Your task to perform on an android device: snooze an email in the gmail app Image 0: 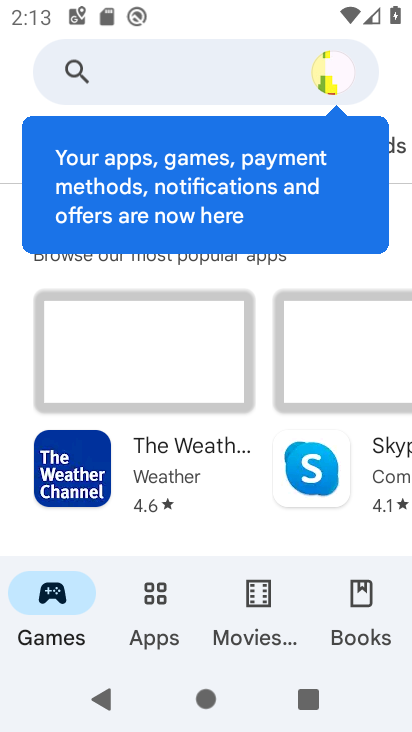
Step 0: press home button
Your task to perform on an android device: snooze an email in the gmail app Image 1: 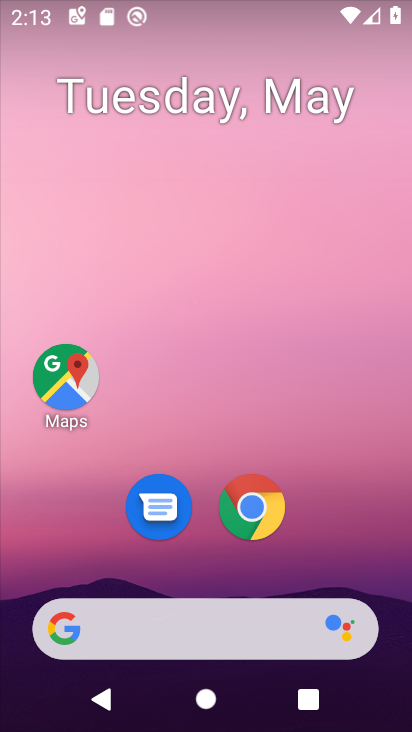
Step 1: drag from (203, 563) to (199, 227)
Your task to perform on an android device: snooze an email in the gmail app Image 2: 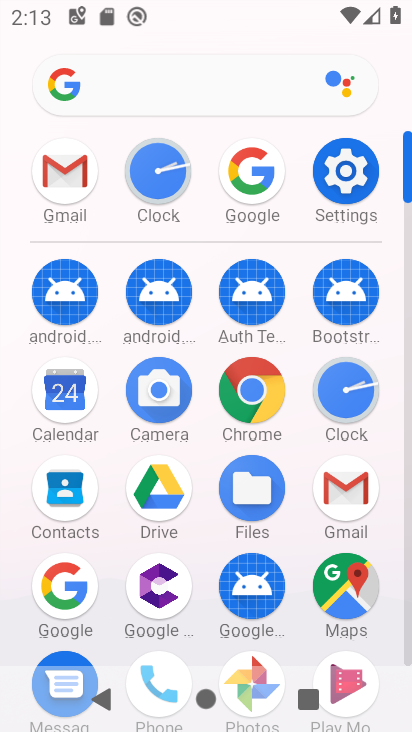
Step 2: click (326, 473)
Your task to perform on an android device: snooze an email in the gmail app Image 3: 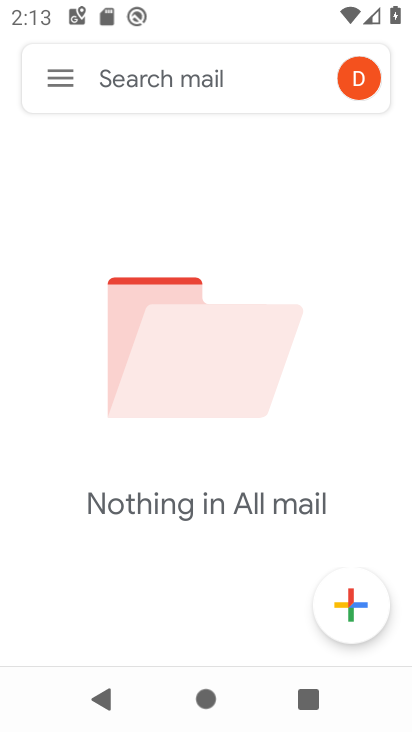
Step 3: click (69, 83)
Your task to perform on an android device: snooze an email in the gmail app Image 4: 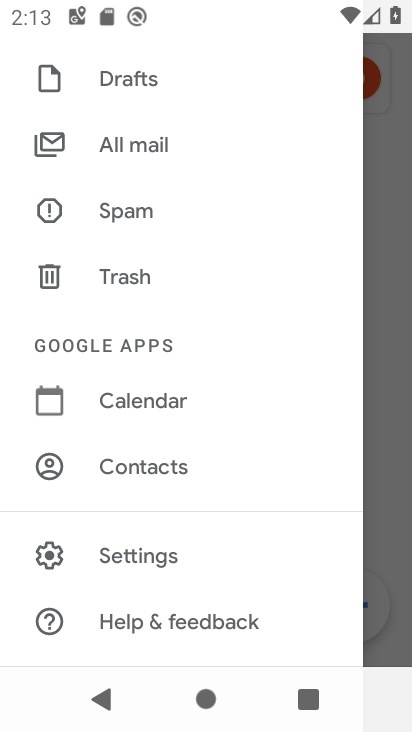
Step 4: click (129, 150)
Your task to perform on an android device: snooze an email in the gmail app Image 5: 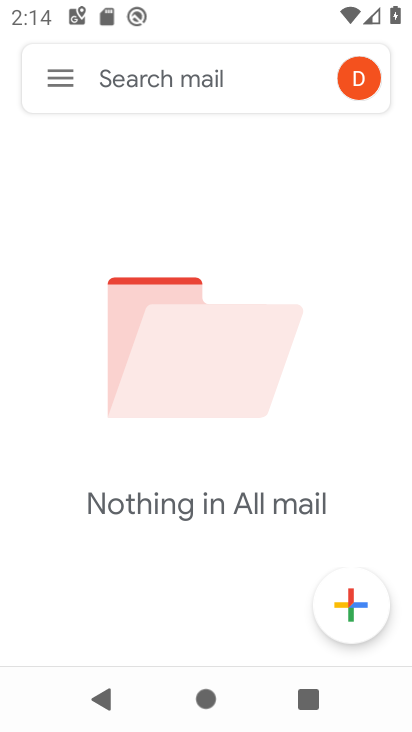
Step 5: task complete